Your task to perform on an android device: toggle pop-ups in chrome Image 0: 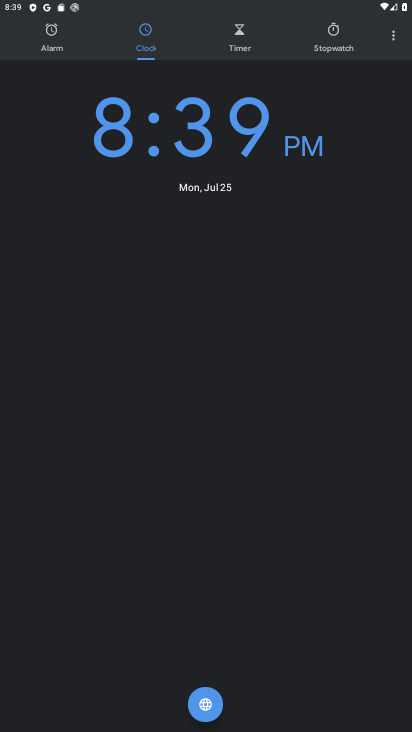
Step 0: press home button
Your task to perform on an android device: toggle pop-ups in chrome Image 1: 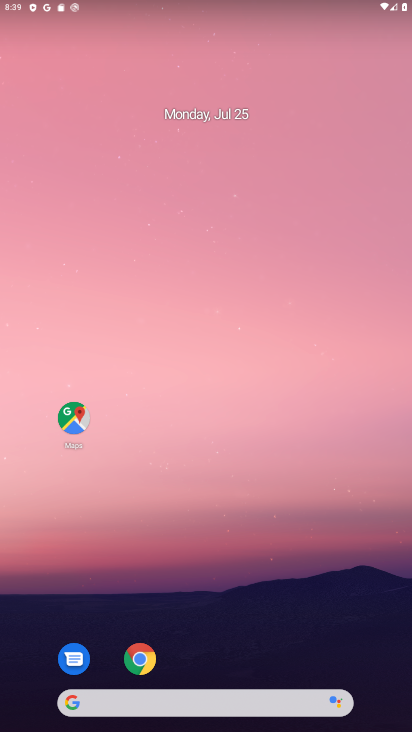
Step 1: click (143, 663)
Your task to perform on an android device: toggle pop-ups in chrome Image 2: 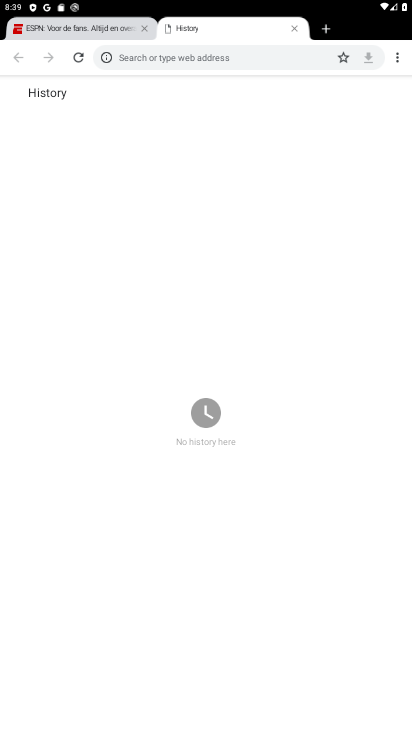
Step 2: click (396, 59)
Your task to perform on an android device: toggle pop-ups in chrome Image 3: 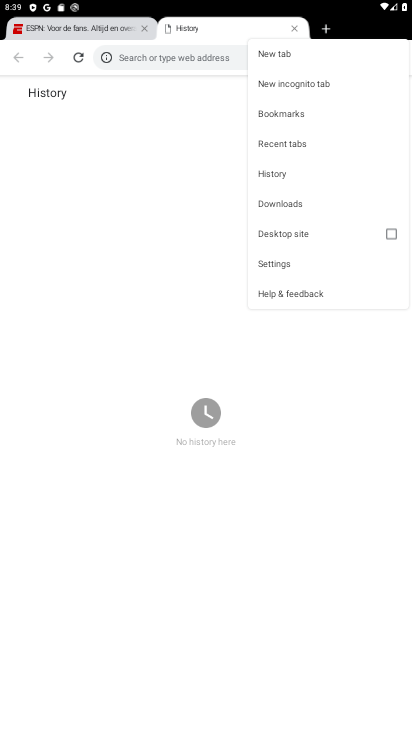
Step 3: click (312, 276)
Your task to perform on an android device: toggle pop-ups in chrome Image 4: 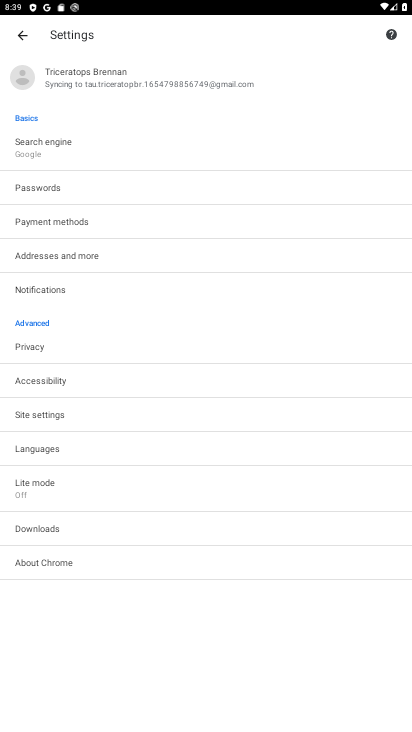
Step 4: click (78, 415)
Your task to perform on an android device: toggle pop-ups in chrome Image 5: 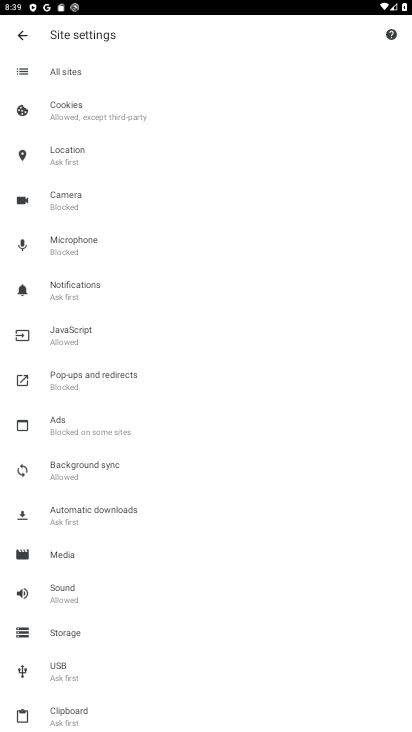
Step 5: click (102, 379)
Your task to perform on an android device: toggle pop-ups in chrome Image 6: 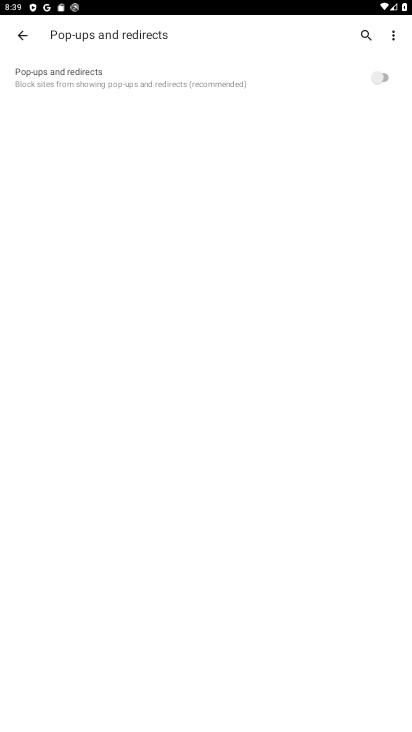
Step 6: click (392, 84)
Your task to perform on an android device: toggle pop-ups in chrome Image 7: 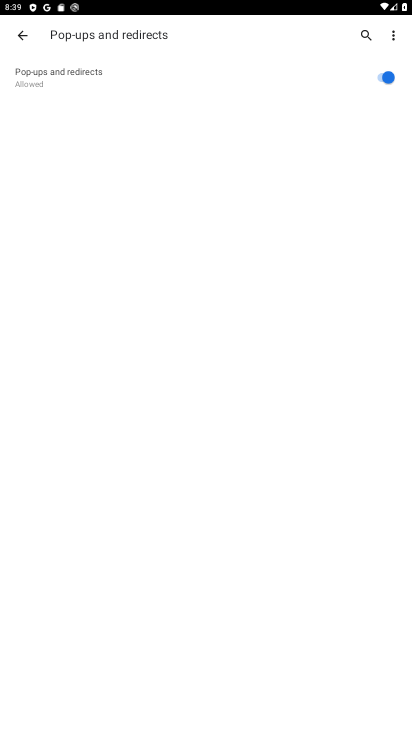
Step 7: task complete